Your task to perform on an android device: stop showing notifications on the lock screen Image 0: 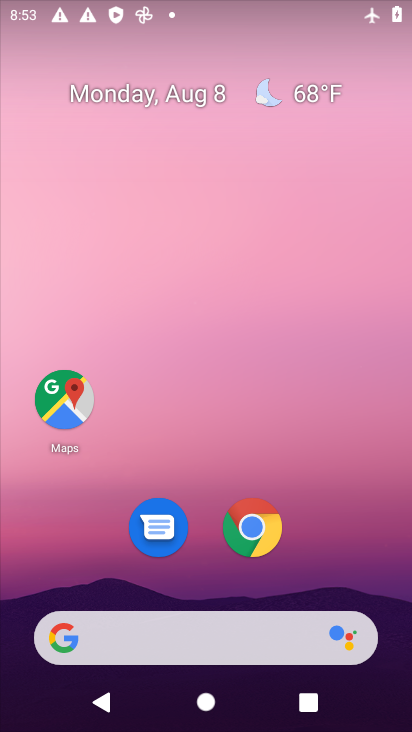
Step 0: drag from (387, 645) to (399, 123)
Your task to perform on an android device: stop showing notifications on the lock screen Image 1: 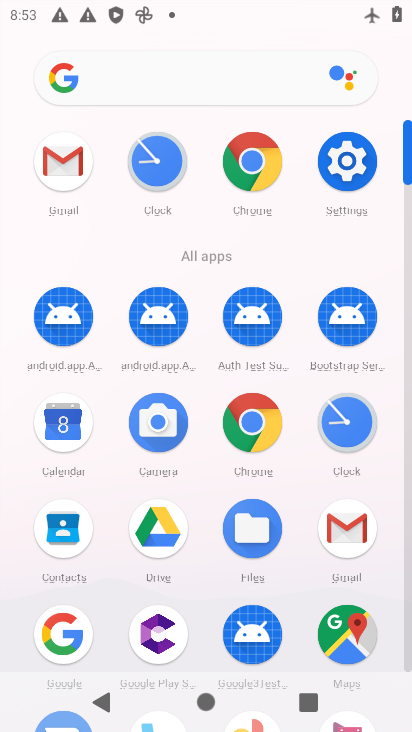
Step 1: click (345, 169)
Your task to perform on an android device: stop showing notifications on the lock screen Image 2: 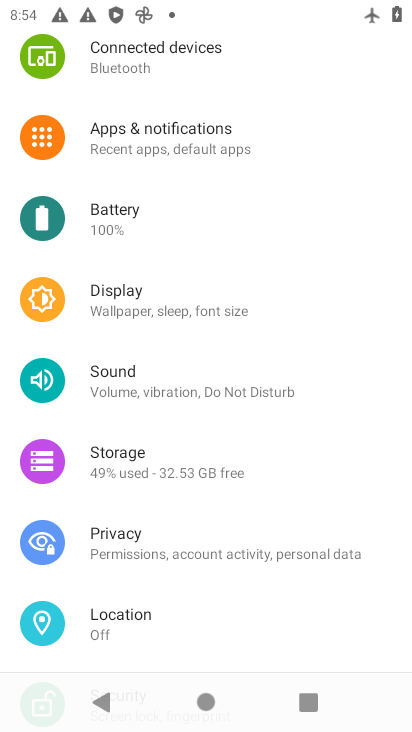
Step 2: click (172, 134)
Your task to perform on an android device: stop showing notifications on the lock screen Image 3: 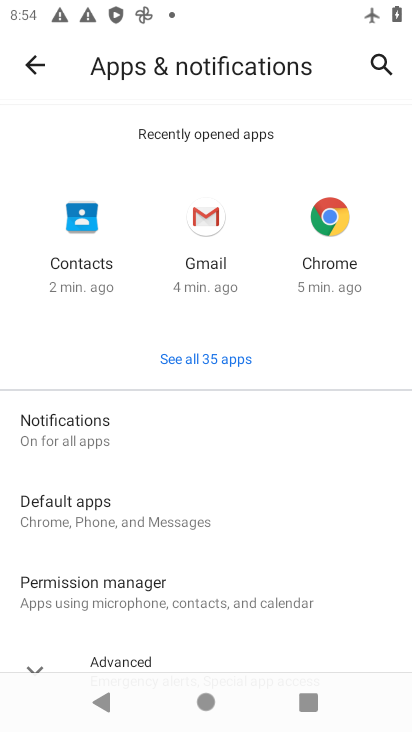
Step 3: click (52, 426)
Your task to perform on an android device: stop showing notifications on the lock screen Image 4: 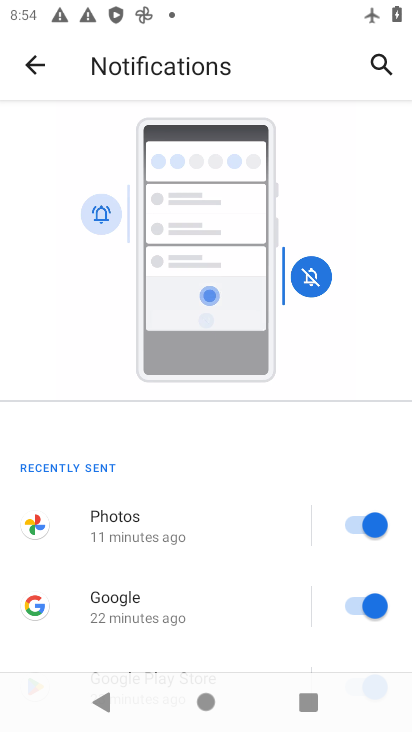
Step 4: drag from (218, 593) to (195, 166)
Your task to perform on an android device: stop showing notifications on the lock screen Image 5: 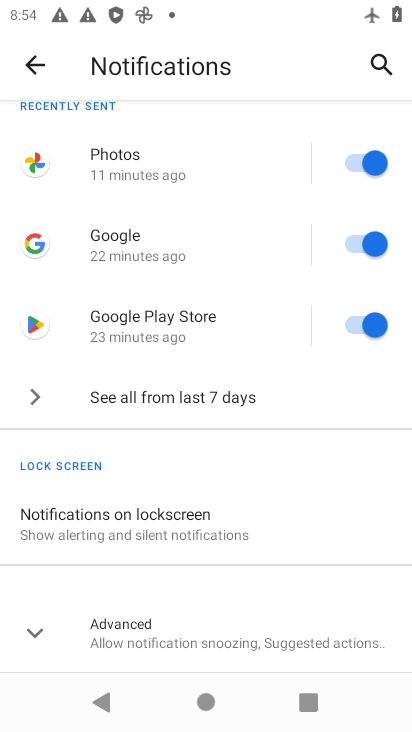
Step 5: click (112, 510)
Your task to perform on an android device: stop showing notifications on the lock screen Image 6: 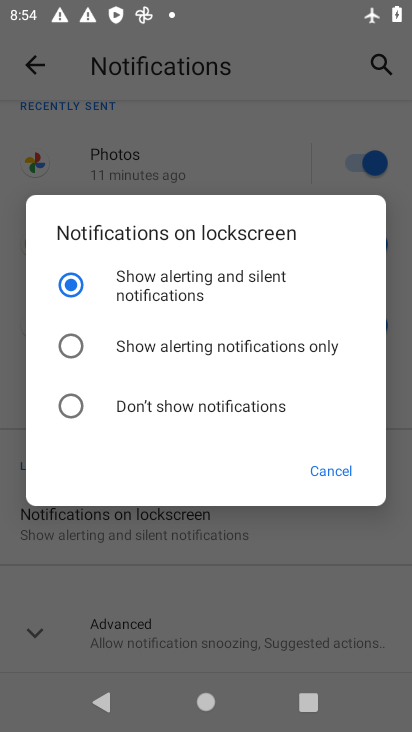
Step 6: click (63, 401)
Your task to perform on an android device: stop showing notifications on the lock screen Image 7: 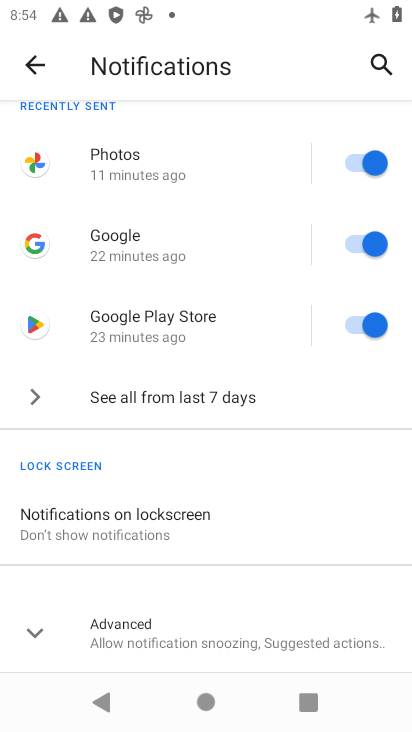
Step 7: task complete